Your task to perform on an android device: add a label to a message in the gmail app Image 0: 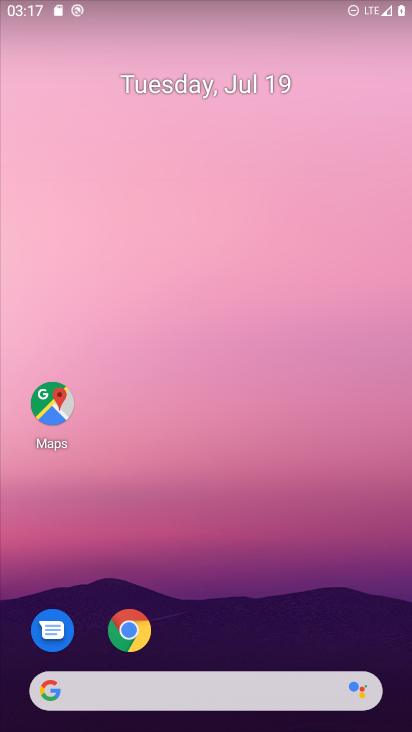
Step 0: drag from (387, 630) to (285, 103)
Your task to perform on an android device: add a label to a message in the gmail app Image 1: 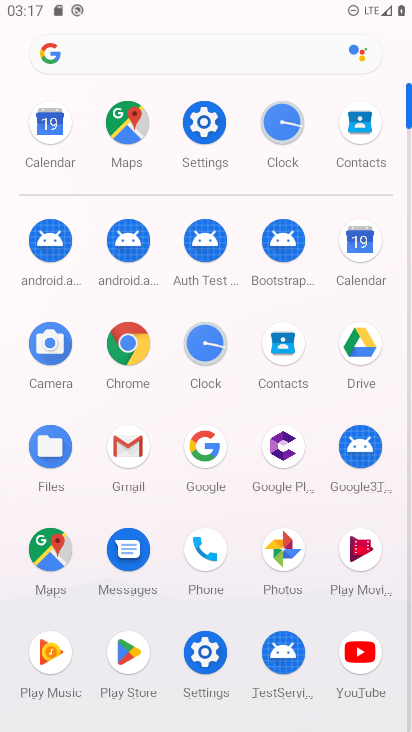
Step 1: click (130, 450)
Your task to perform on an android device: add a label to a message in the gmail app Image 2: 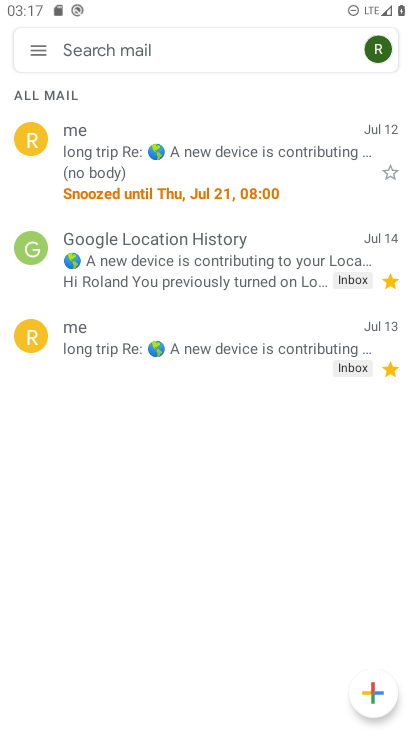
Step 2: click (31, 48)
Your task to perform on an android device: add a label to a message in the gmail app Image 3: 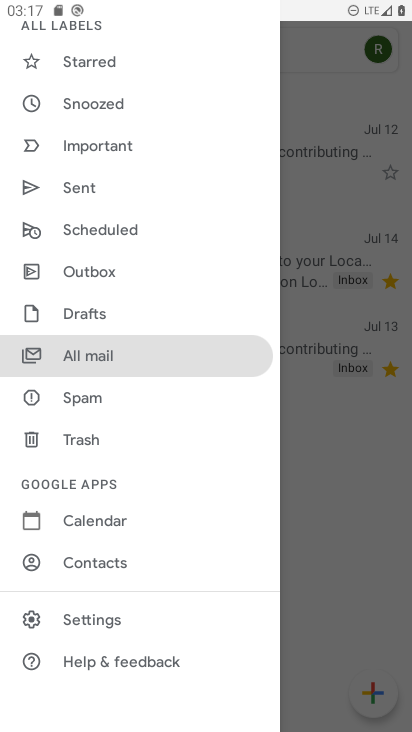
Step 3: click (308, 402)
Your task to perform on an android device: add a label to a message in the gmail app Image 4: 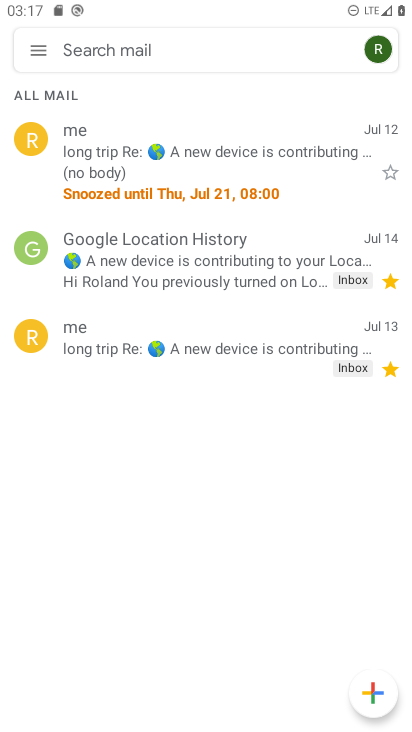
Step 4: click (210, 248)
Your task to perform on an android device: add a label to a message in the gmail app Image 5: 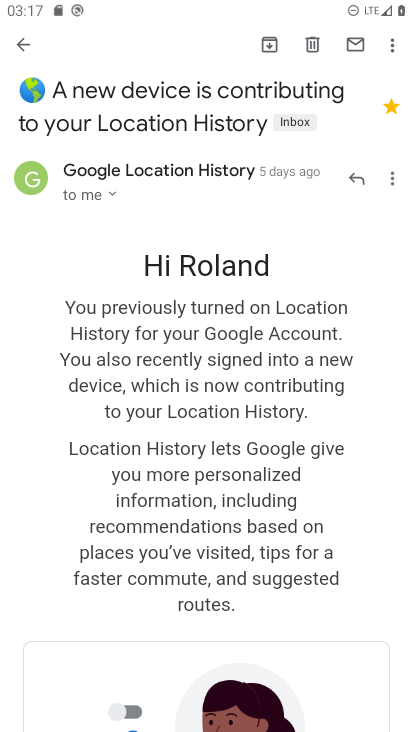
Step 5: click (392, 51)
Your task to perform on an android device: add a label to a message in the gmail app Image 6: 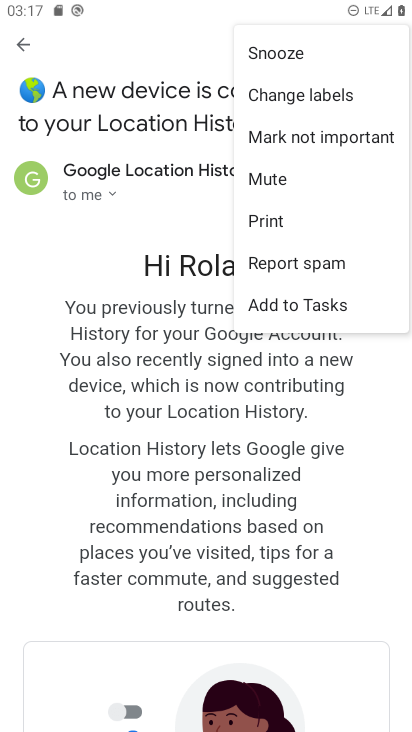
Step 6: click (279, 94)
Your task to perform on an android device: add a label to a message in the gmail app Image 7: 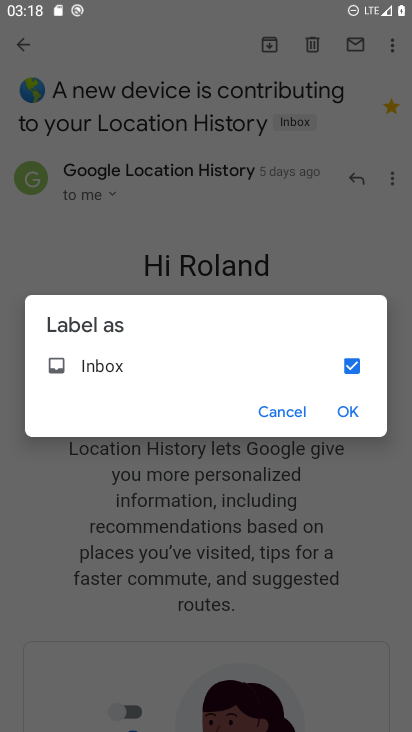
Step 7: click (345, 410)
Your task to perform on an android device: add a label to a message in the gmail app Image 8: 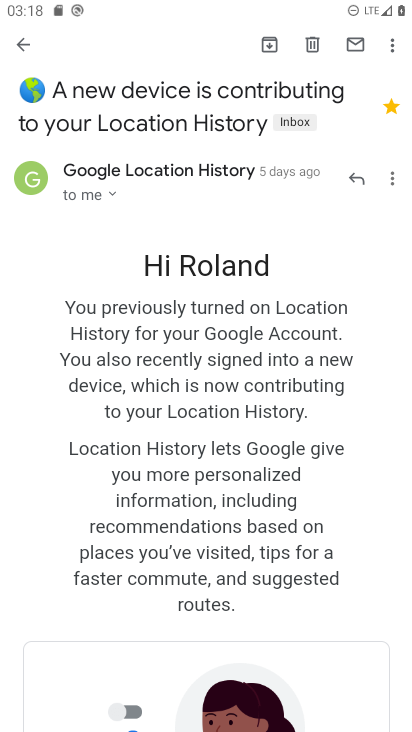
Step 8: task complete